Your task to perform on an android device: open chrome and create a bookmark for the current page Image 0: 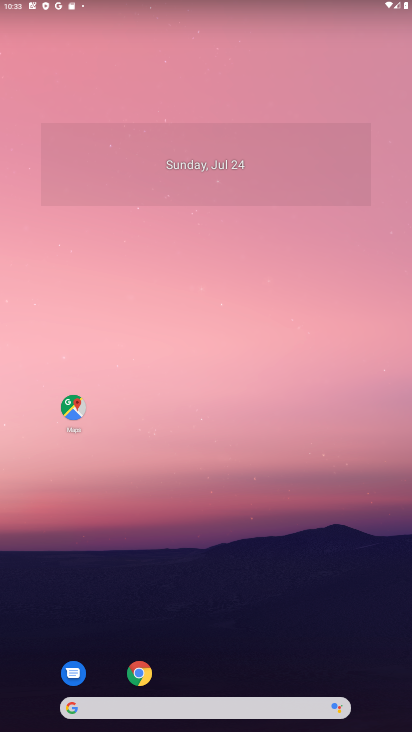
Step 0: click (134, 670)
Your task to perform on an android device: open chrome and create a bookmark for the current page Image 1: 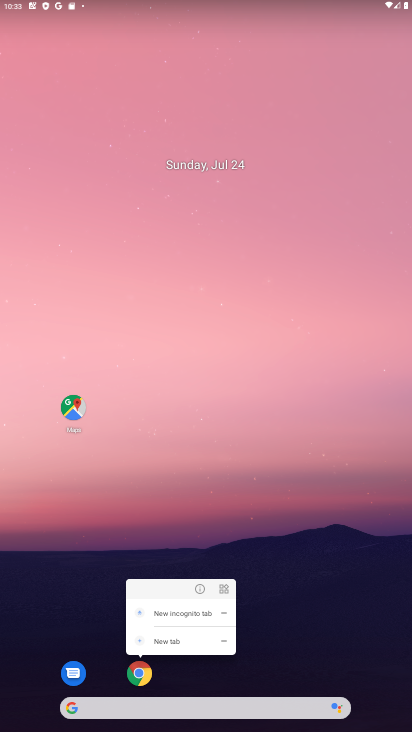
Step 1: click (137, 669)
Your task to perform on an android device: open chrome and create a bookmark for the current page Image 2: 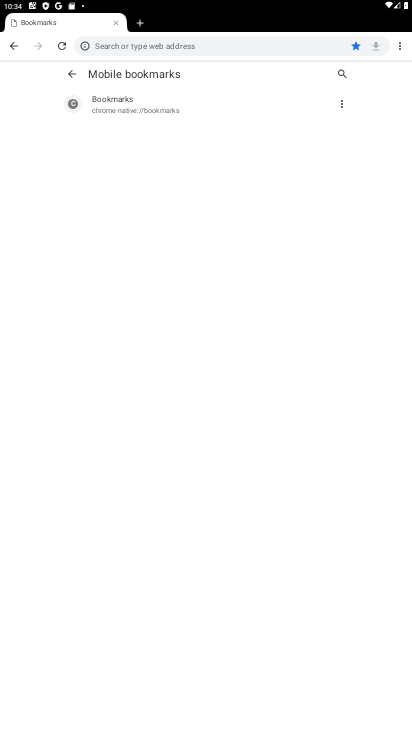
Step 2: click (14, 43)
Your task to perform on an android device: open chrome and create a bookmark for the current page Image 3: 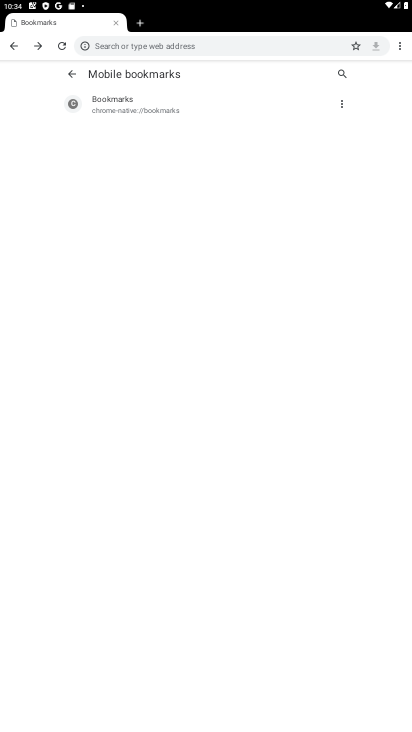
Step 3: click (10, 40)
Your task to perform on an android device: open chrome and create a bookmark for the current page Image 4: 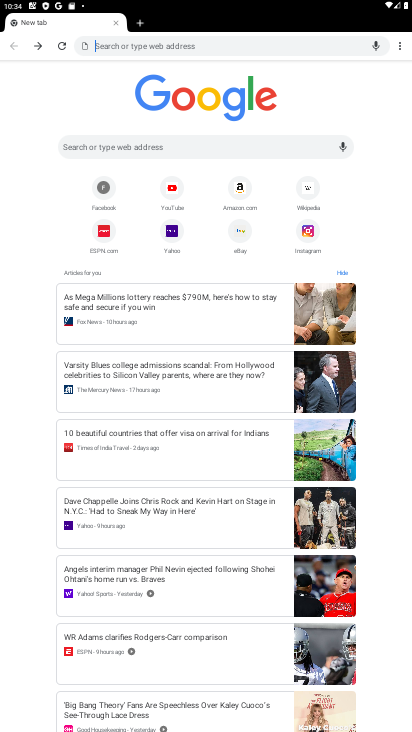
Step 4: click (405, 36)
Your task to perform on an android device: open chrome and create a bookmark for the current page Image 5: 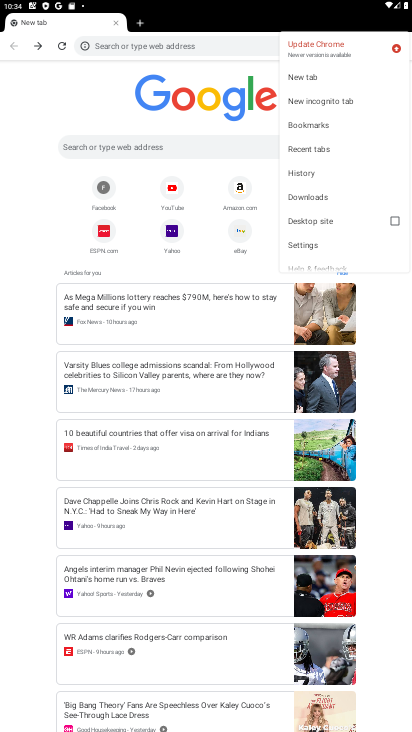
Step 5: click (297, 122)
Your task to perform on an android device: open chrome and create a bookmark for the current page Image 6: 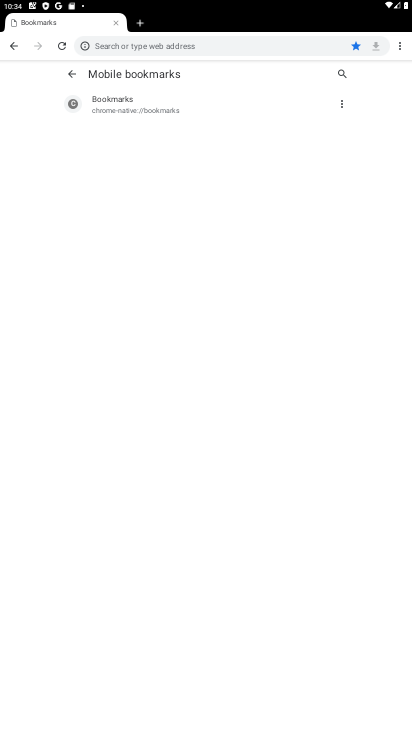
Step 6: task complete